Your task to perform on an android device: add a contact Image 0: 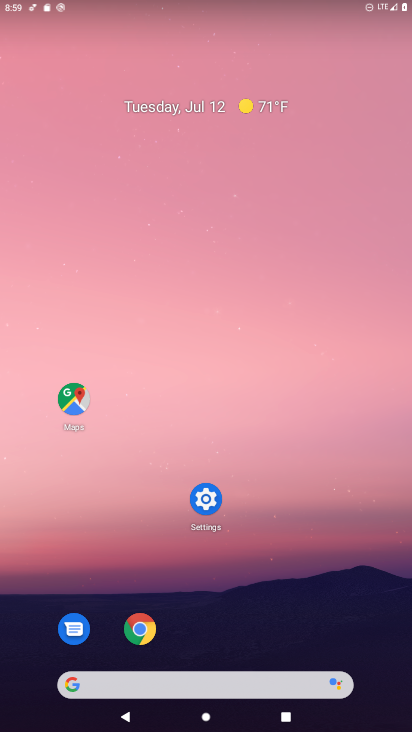
Step 0: drag from (368, 627) to (346, 140)
Your task to perform on an android device: add a contact Image 1: 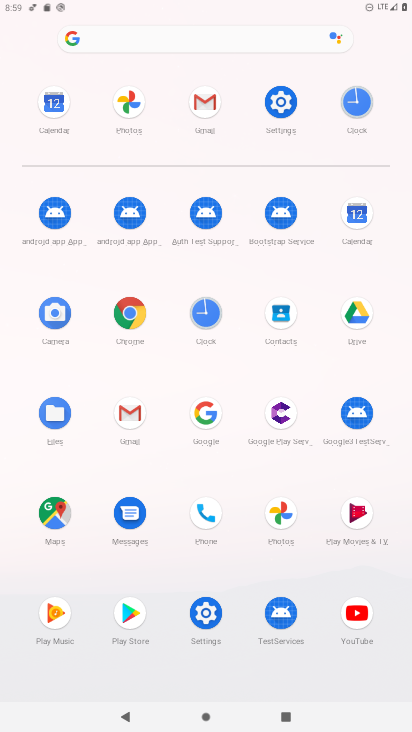
Step 1: click (281, 312)
Your task to perform on an android device: add a contact Image 2: 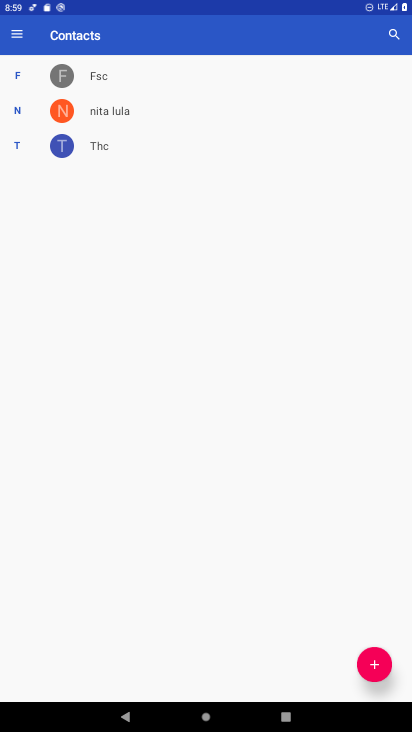
Step 2: click (367, 659)
Your task to perform on an android device: add a contact Image 3: 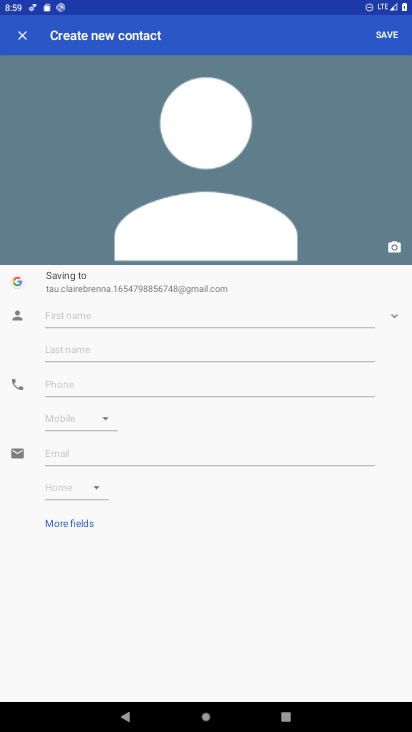
Step 3: click (132, 313)
Your task to perform on an android device: add a contact Image 4: 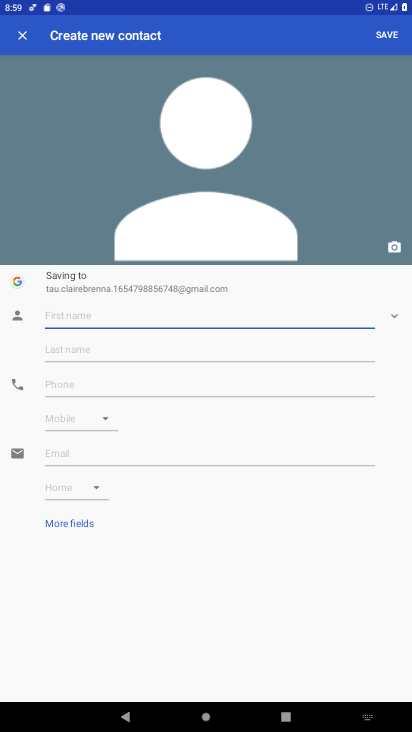
Step 4: type "dghghfhgvj"
Your task to perform on an android device: add a contact Image 5: 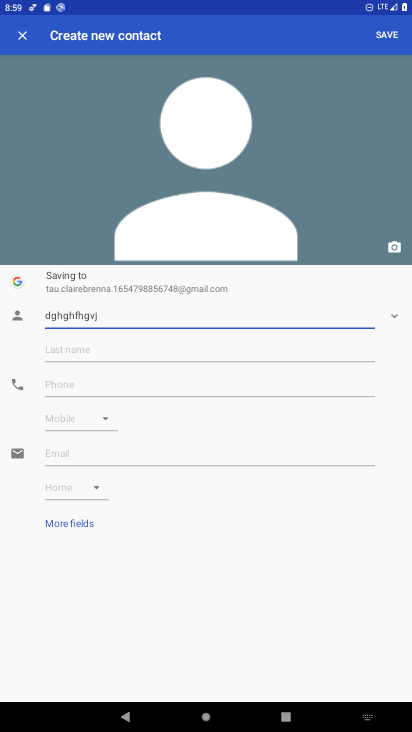
Step 5: click (74, 346)
Your task to perform on an android device: add a contact Image 6: 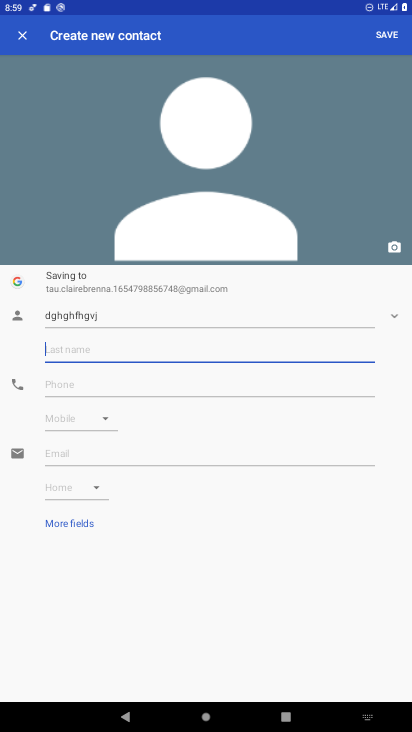
Step 6: type "tfdytdthff"
Your task to perform on an android device: add a contact Image 7: 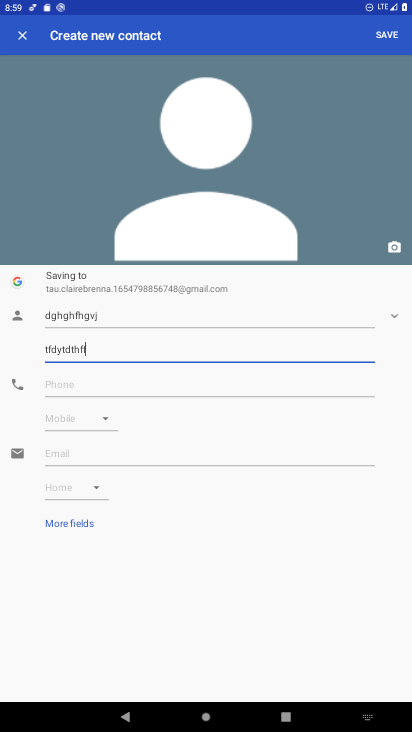
Step 7: click (57, 390)
Your task to perform on an android device: add a contact Image 8: 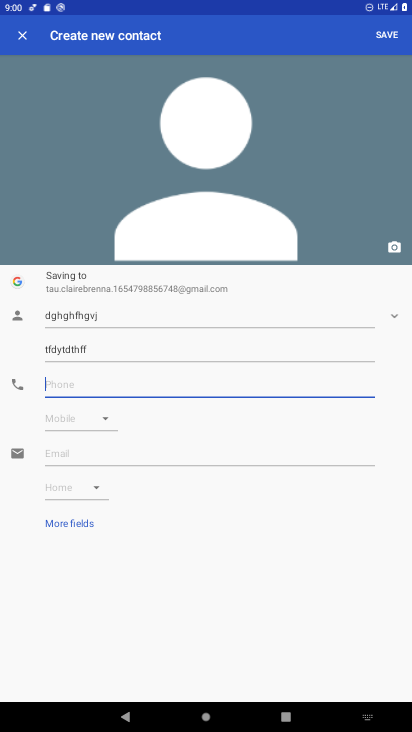
Step 8: type "785674534785"
Your task to perform on an android device: add a contact Image 9: 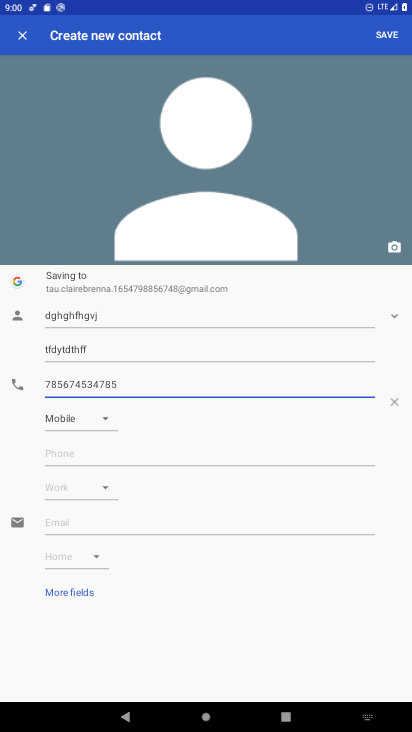
Step 9: click (393, 35)
Your task to perform on an android device: add a contact Image 10: 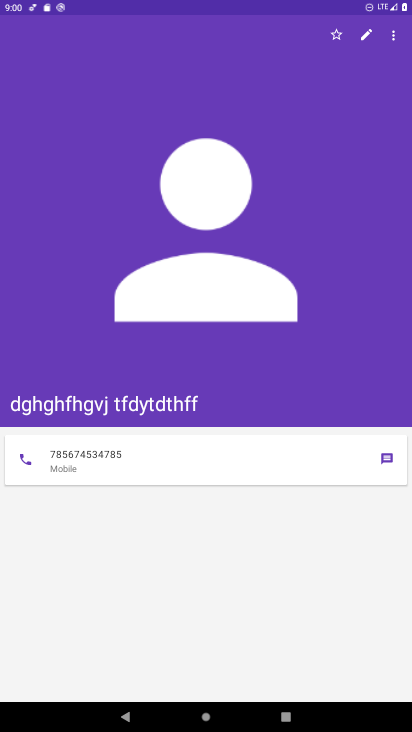
Step 10: task complete